Your task to perform on an android device: Open sound settings Image 0: 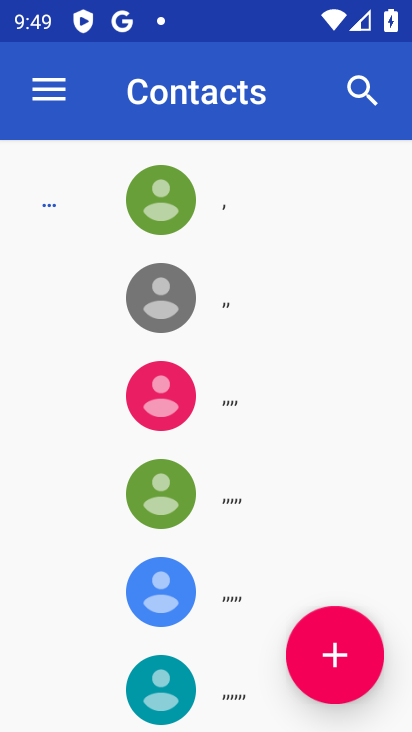
Step 0: press home button
Your task to perform on an android device: Open sound settings Image 1: 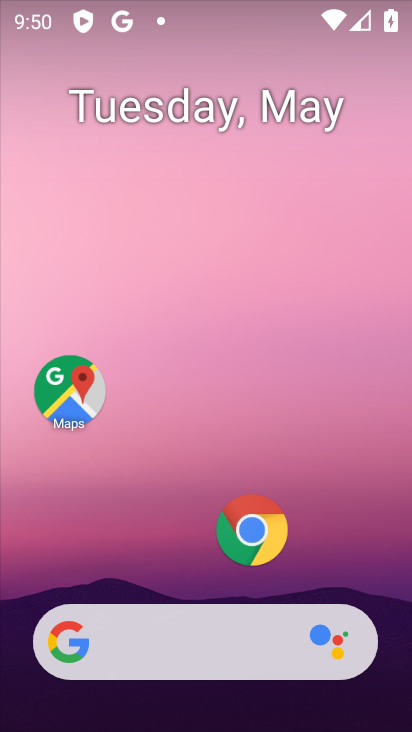
Step 1: drag from (164, 487) to (220, 146)
Your task to perform on an android device: Open sound settings Image 2: 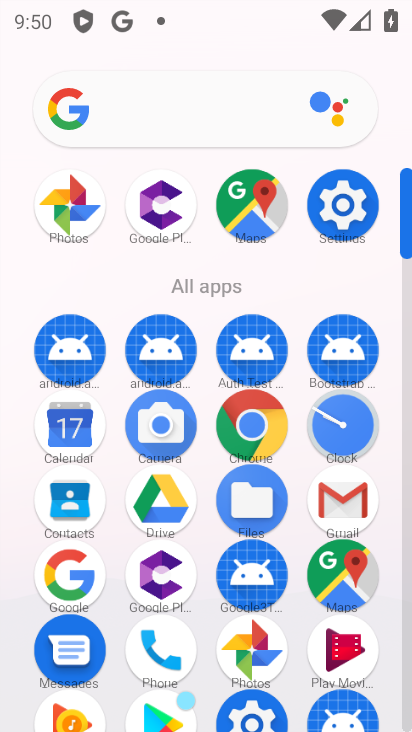
Step 2: click (350, 210)
Your task to perform on an android device: Open sound settings Image 3: 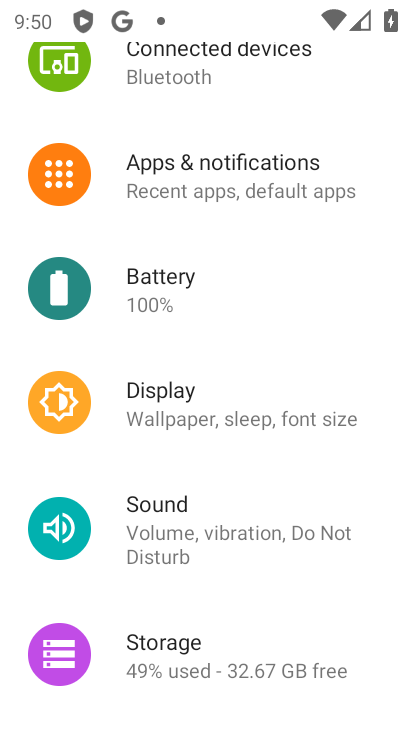
Step 3: click (200, 512)
Your task to perform on an android device: Open sound settings Image 4: 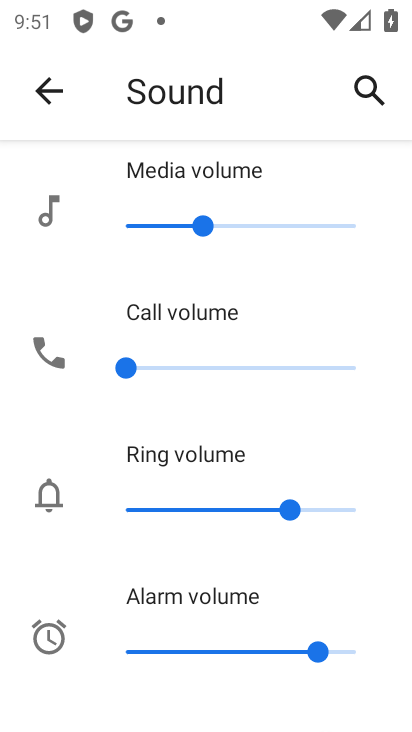
Step 4: task complete